Your task to perform on an android device: When is my next appointment? Image 0: 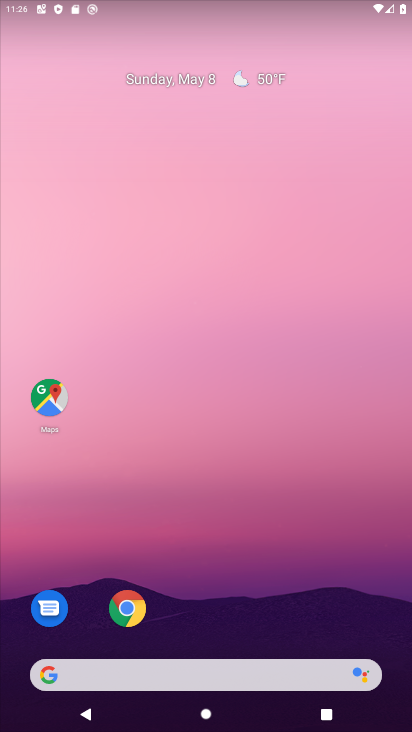
Step 0: drag from (253, 634) to (315, 186)
Your task to perform on an android device: When is my next appointment? Image 1: 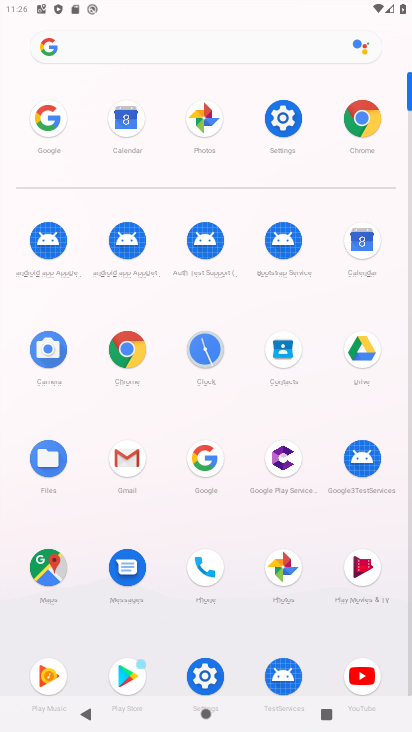
Step 1: click (365, 247)
Your task to perform on an android device: When is my next appointment? Image 2: 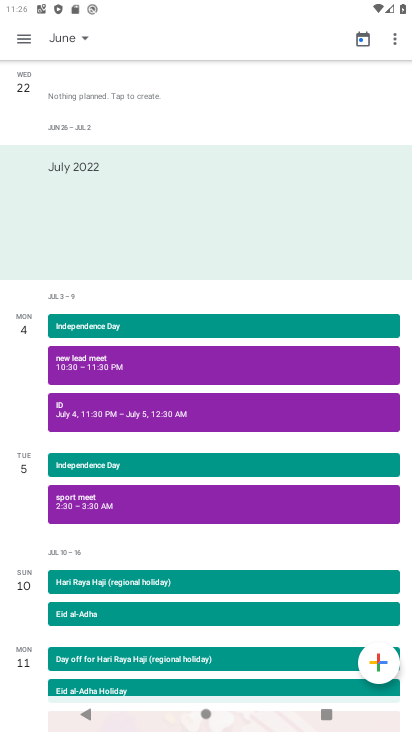
Step 2: click (50, 42)
Your task to perform on an android device: When is my next appointment? Image 3: 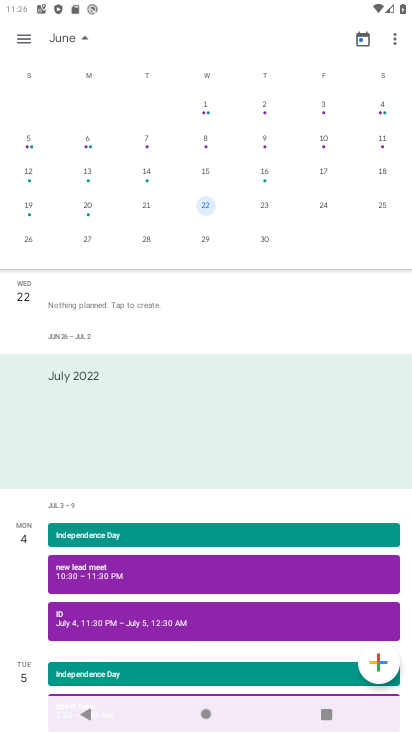
Step 3: task complete